Your task to perform on an android device: turn on improve location accuracy Image 0: 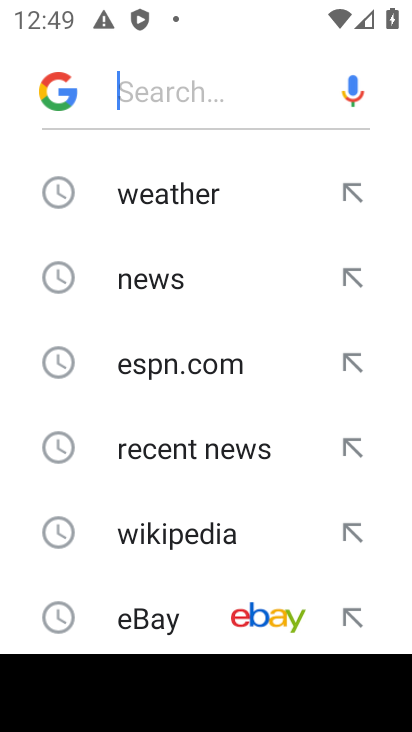
Step 0: press home button
Your task to perform on an android device: turn on improve location accuracy Image 1: 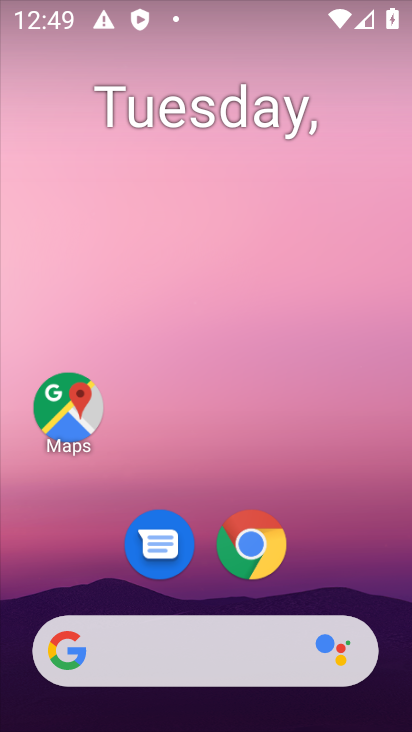
Step 1: drag from (359, 533) to (298, 114)
Your task to perform on an android device: turn on improve location accuracy Image 2: 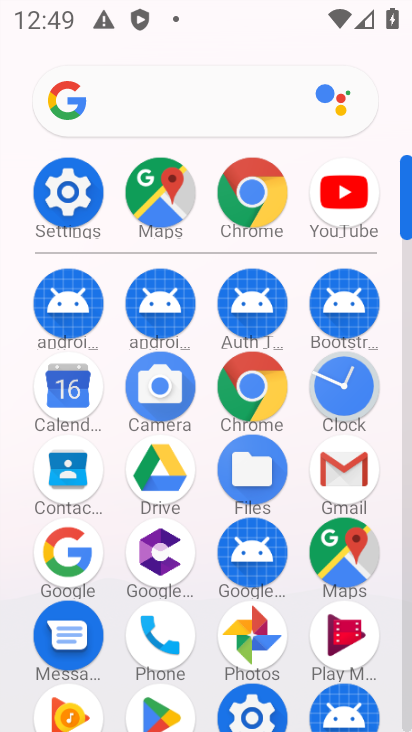
Step 2: click (247, 715)
Your task to perform on an android device: turn on improve location accuracy Image 3: 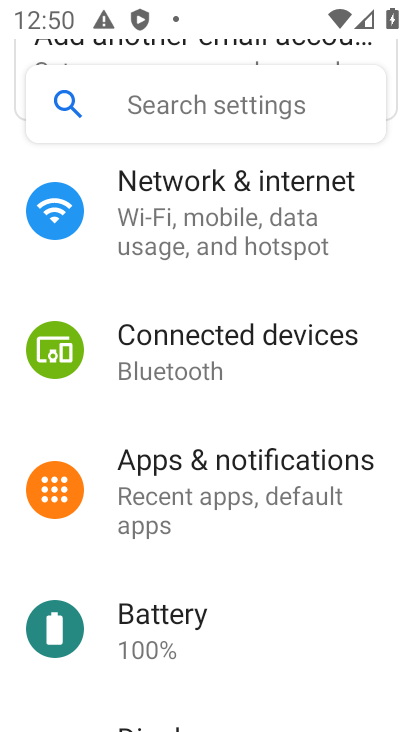
Step 3: drag from (241, 587) to (273, 162)
Your task to perform on an android device: turn on improve location accuracy Image 4: 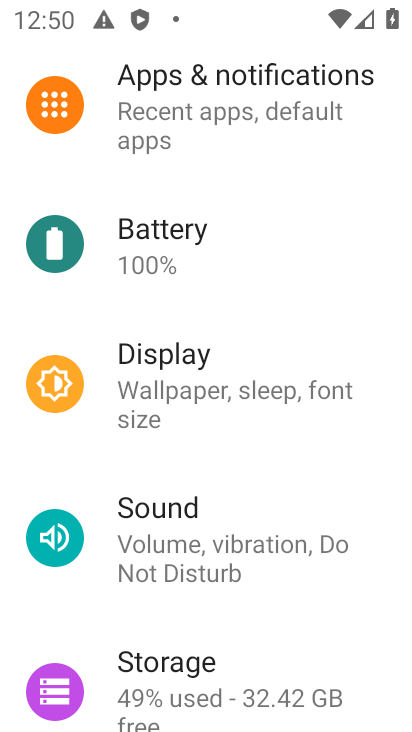
Step 4: drag from (287, 646) to (315, 217)
Your task to perform on an android device: turn on improve location accuracy Image 5: 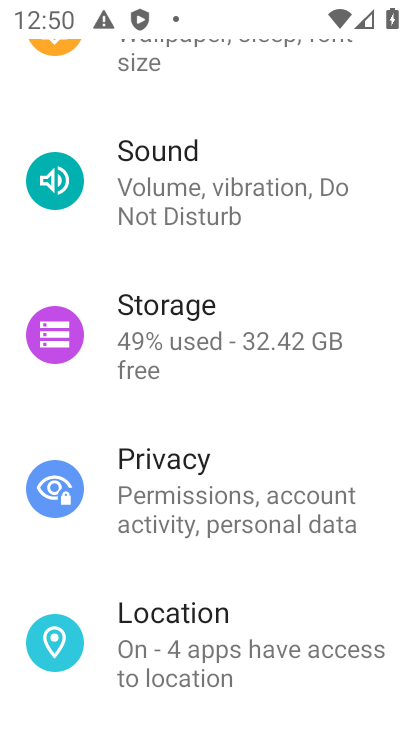
Step 5: click (191, 635)
Your task to perform on an android device: turn on improve location accuracy Image 6: 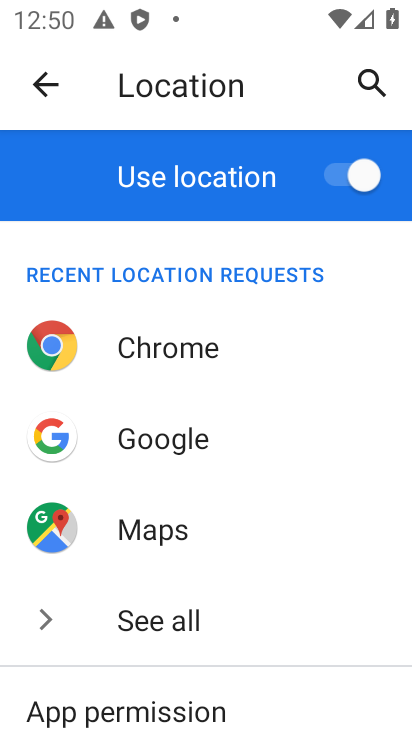
Step 6: drag from (278, 698) to (305, 278)
Your task to perform on an android device: turn on improve location accuracy Image 7: 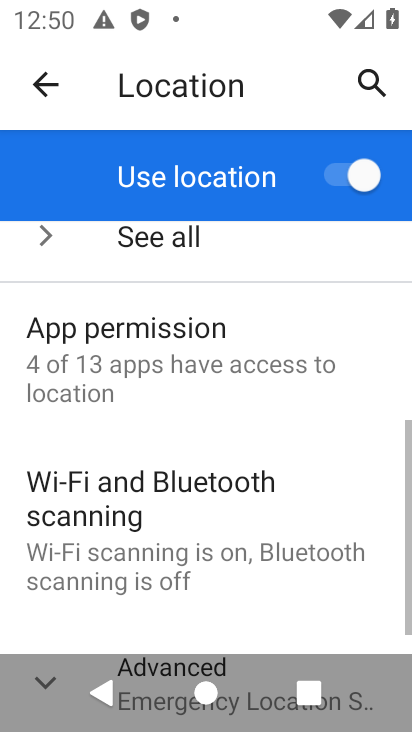
Step 7: drag from (193, 614) to (258, 362)
Your task to perform on an android device: turn on improve location accuracy Image 8: 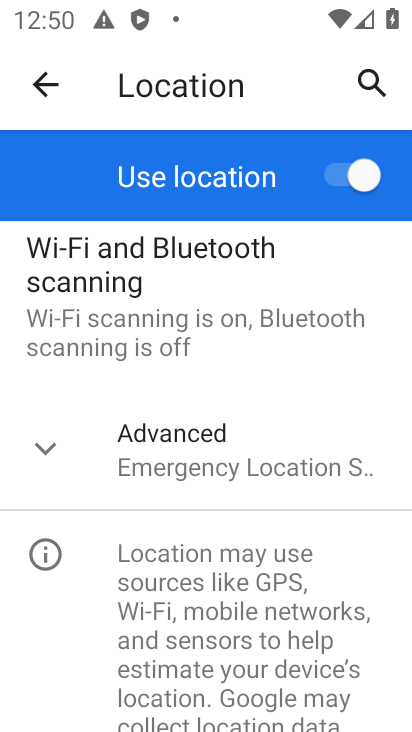
Step 8: click (196, 478)
Your task to perform on an android device: turn on improve location accuracy Image 9: 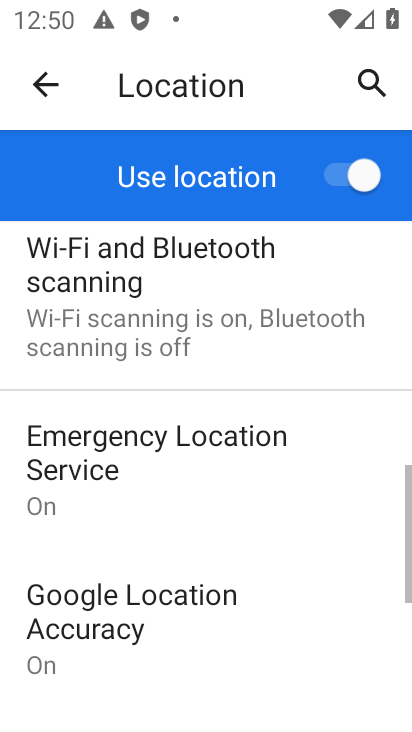
Step 9: drag from (278, 633) to (284, 390)
Your task to perform on an android device: turn on improve location accuracy Image 10: 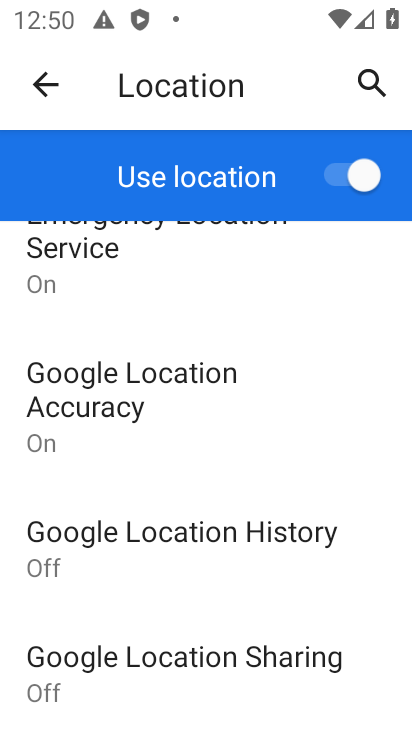
Step 10: click (150, 366)
Your task to perform on an android device: turn on improve location accuracy Image 11: 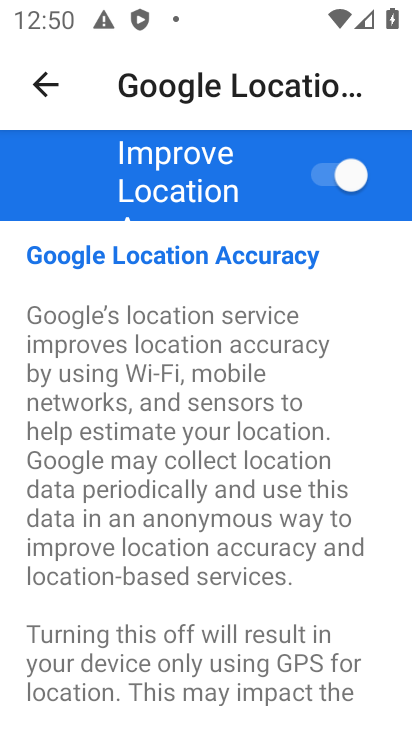
Step 11: task complete